Your task to perform on an android device: open app "ColorNote Notepad Notes" Image 0: 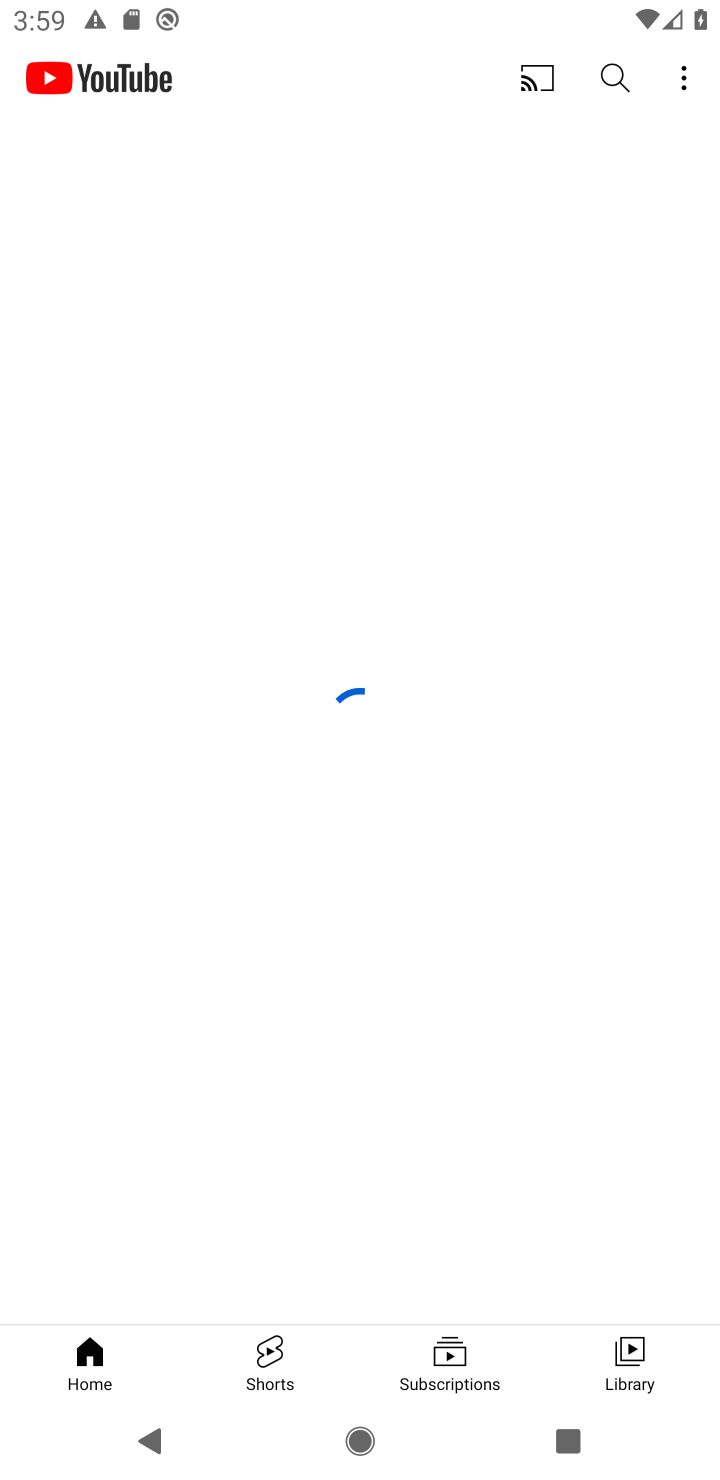
Step 0: press back button
Your task to perform on an android device: open app "ColorNote Notepad Notes" Image 1: 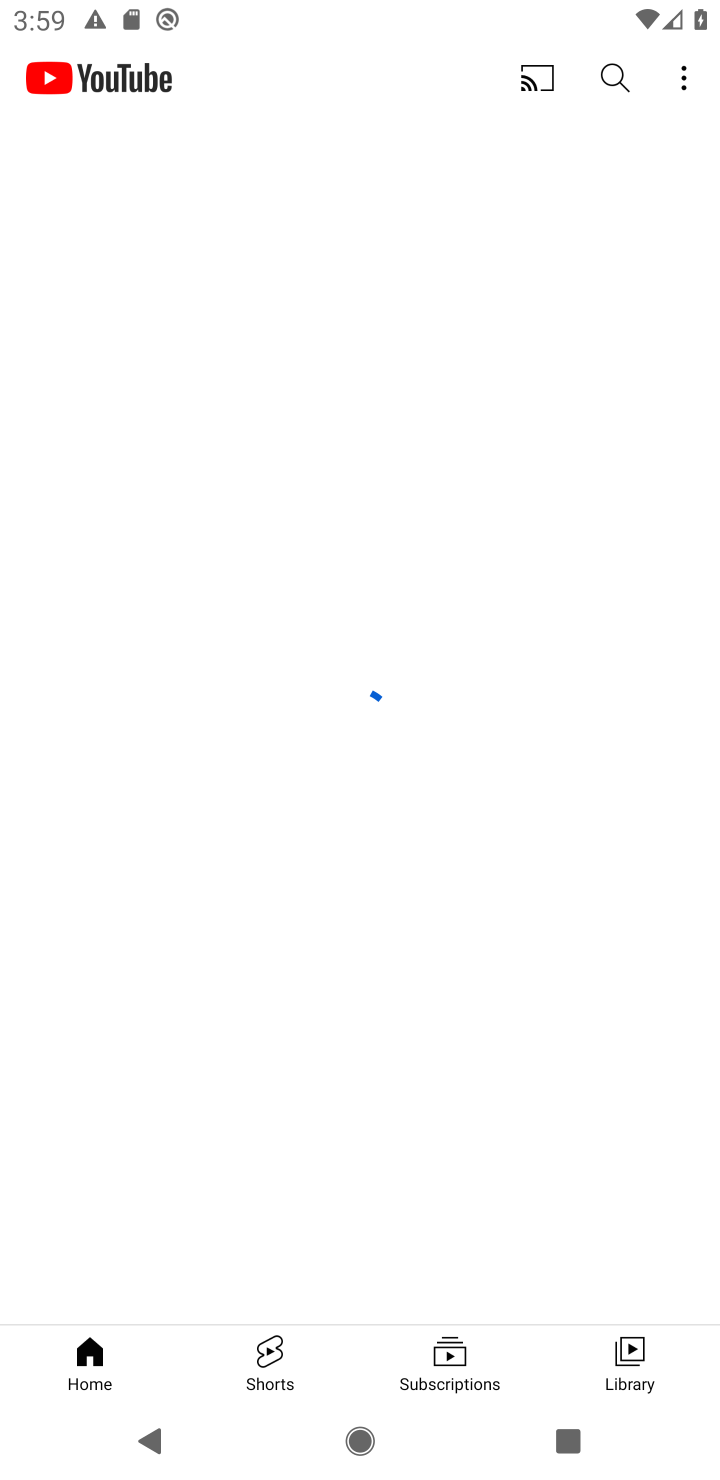
Step 1: click (607, 73)
Your task to perform on an android device: open app "ColorNote Notepad Notes" Image 2: 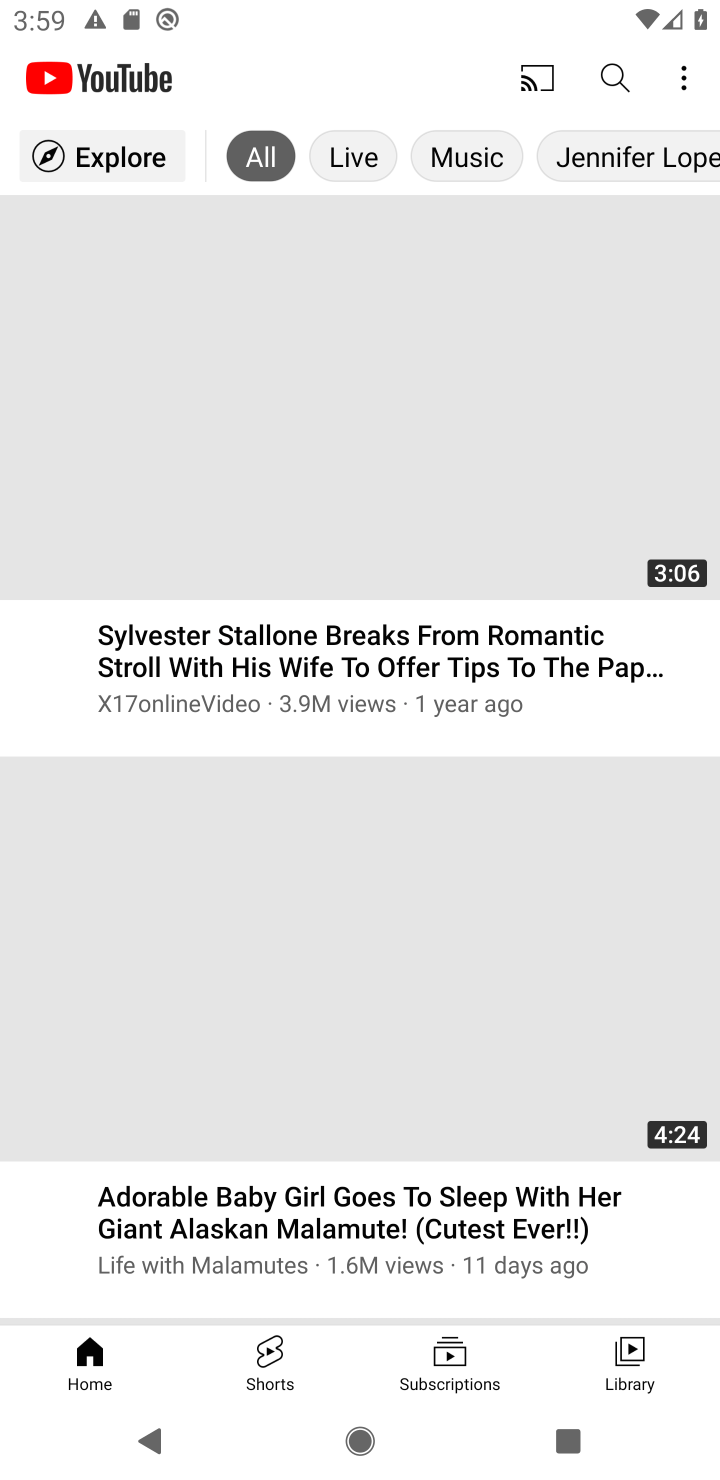
Step 2: press home button
Your task to perform on an android device: open app "ColorNote Notepad Notes" Image 3: 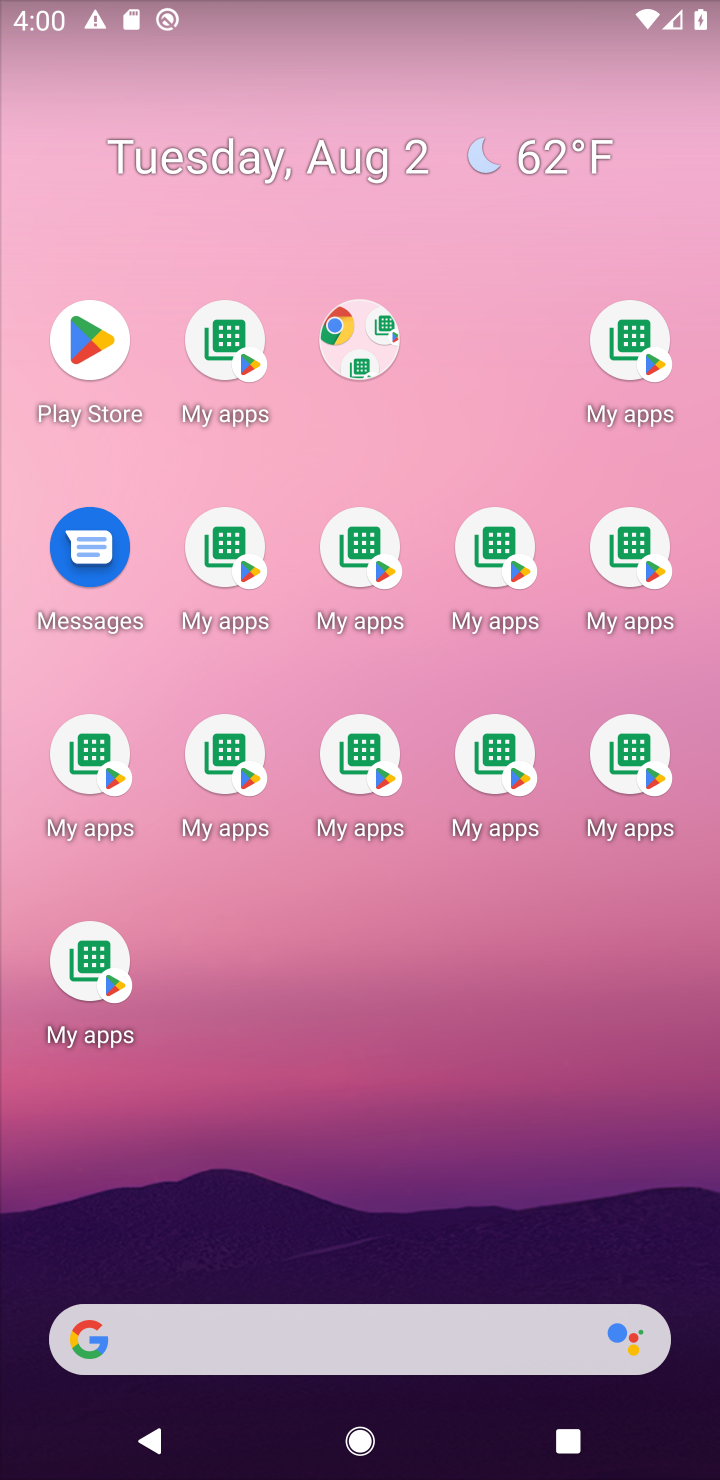
Step 3: click (88, 334)
Your task to perform on an android device: open app "ColorNote Notepad Notes" Image 4: 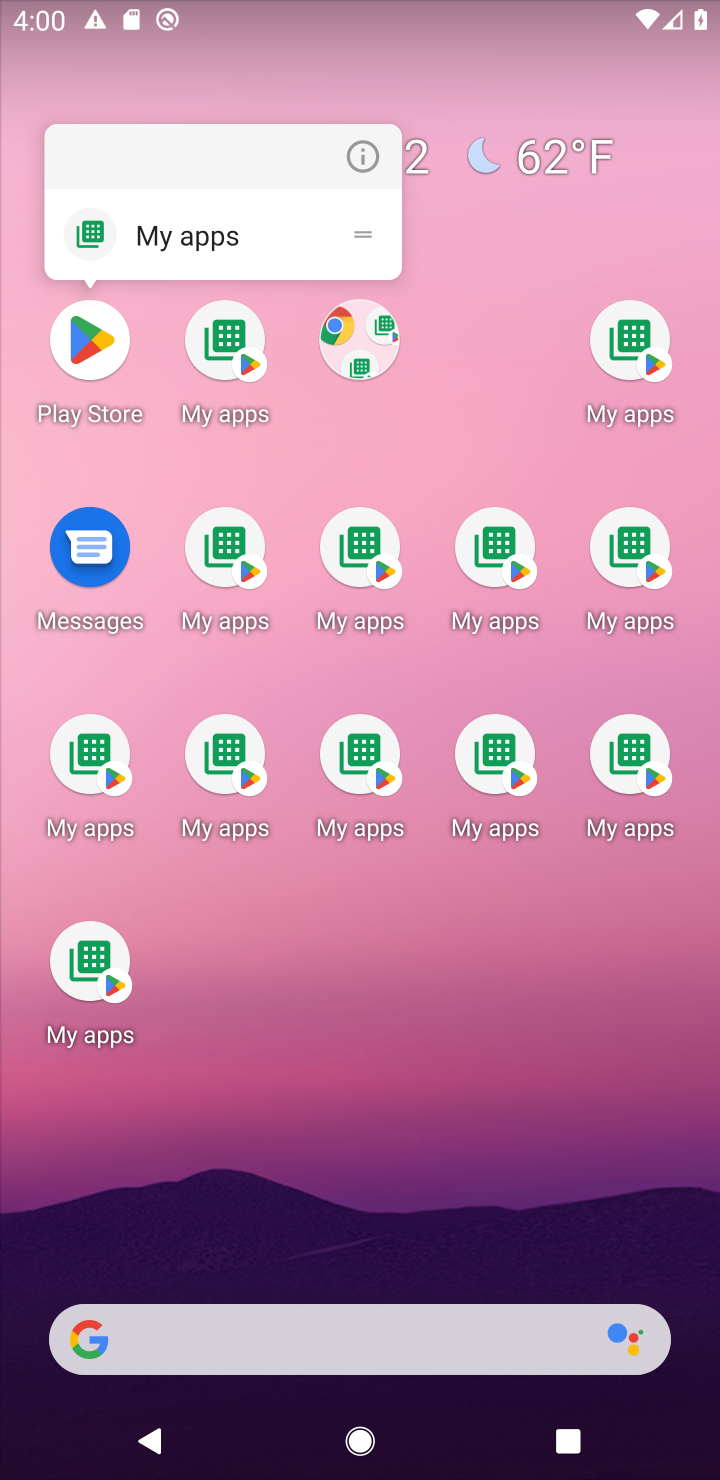
Step 4: click (111, 318)
Your task to perform on an android device: open app "ColorNote Notepad Notes" Image 5: 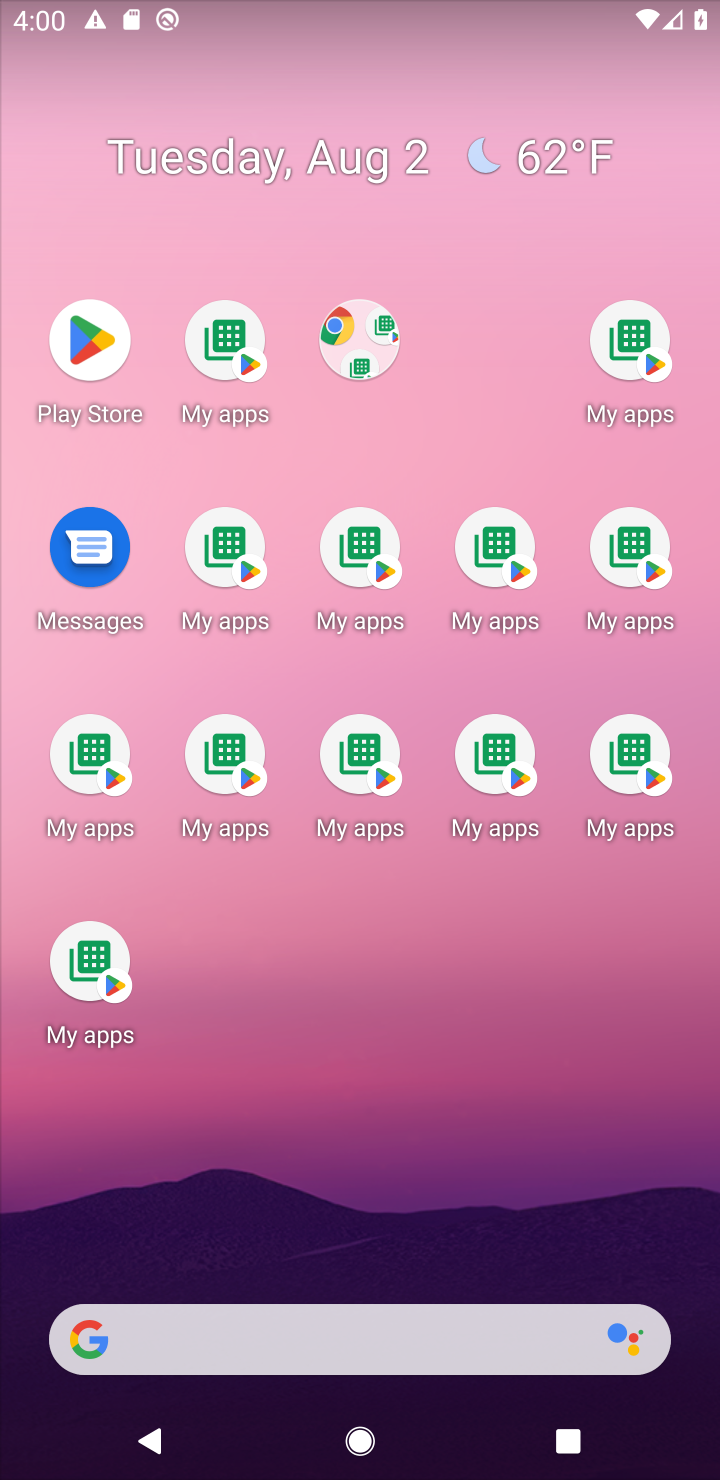
Step 5: drag from (95, 345) to (106, 418)
Your task to perform on an android device: open app "ColorNote Notepad Notes" Image 6: 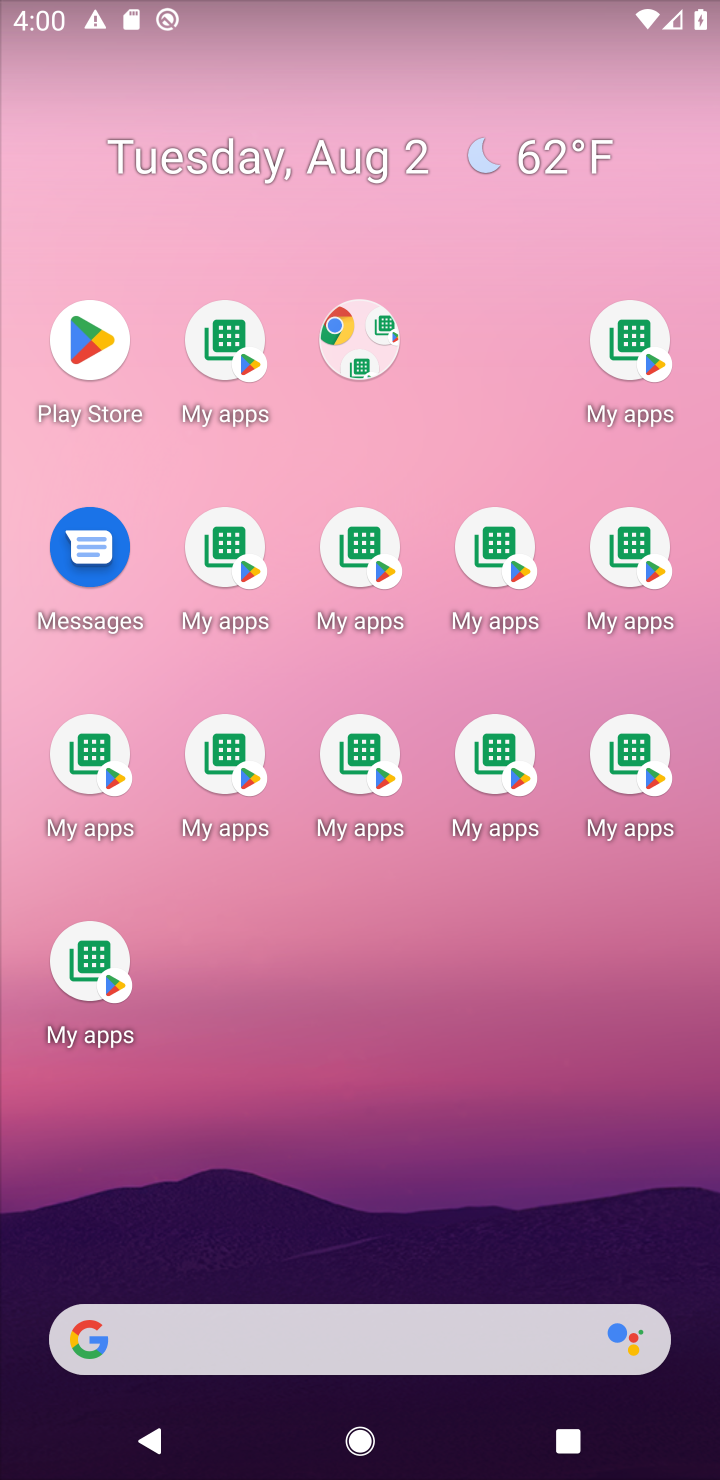
Step 6: click (80, 347)
Your task to perform on an android device: open app "ColorNote Notepad Notes" Image 7: 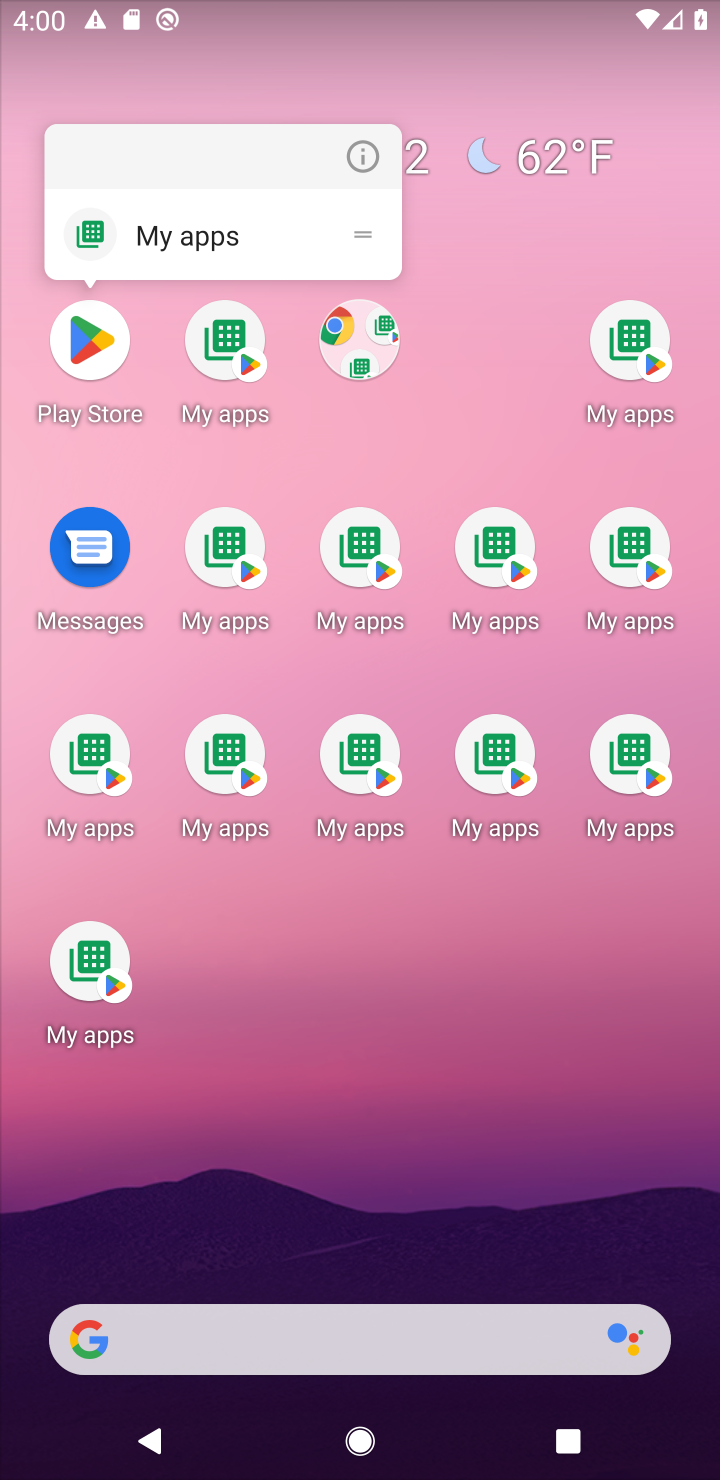
Step 7: click (80, 356)
Your task to perform on an android device: open app "ColorNote Notepad Notes" Image 8: 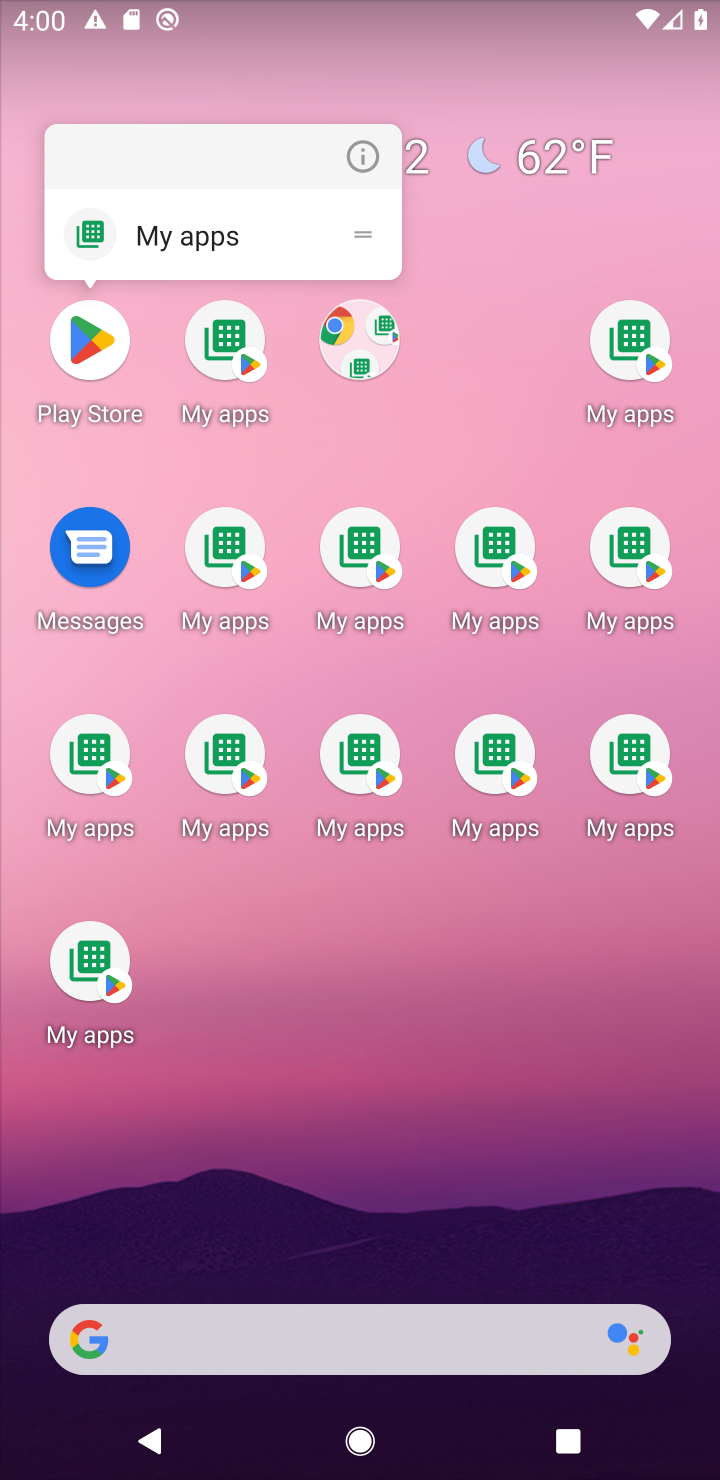
Step 8: click (78, 352)
Your task to perform on an android device: open app "ColorNote Notepad Notes" Image 9: 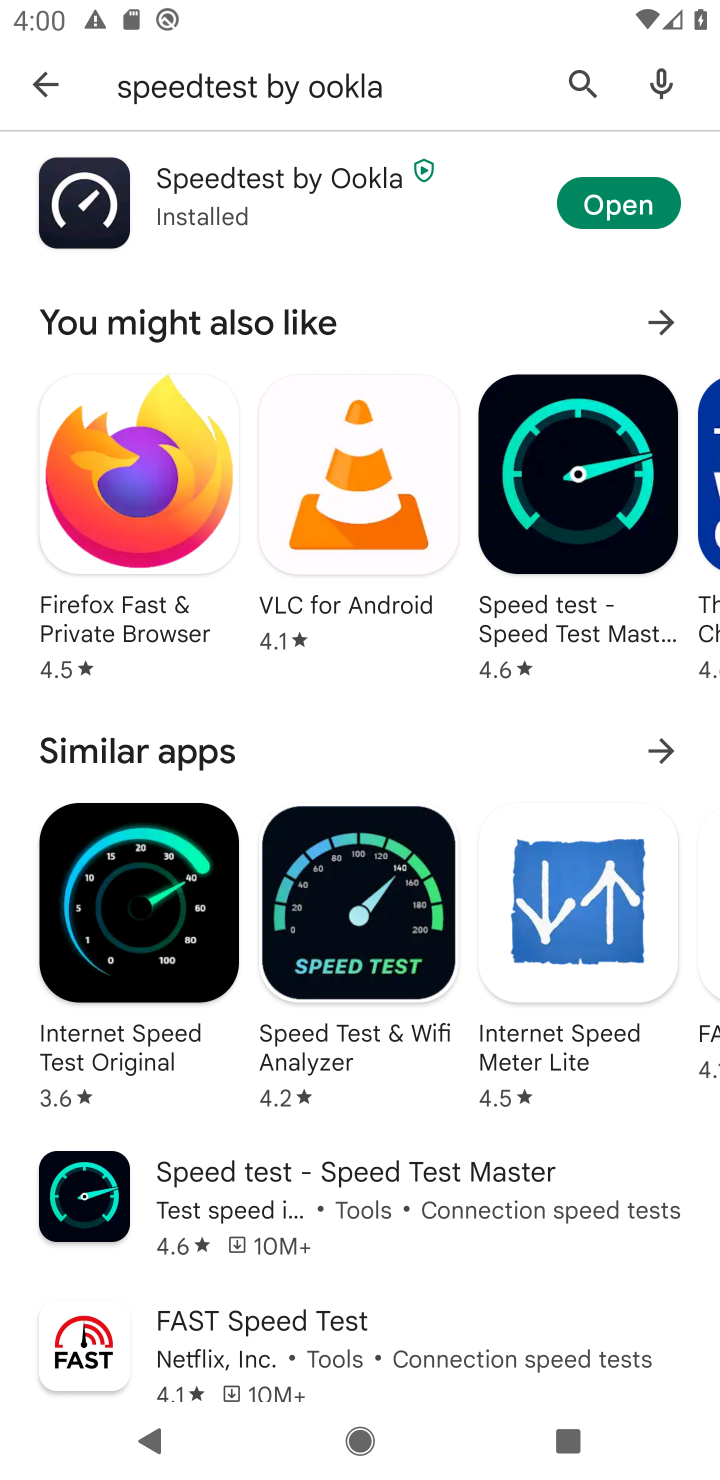
Step 9: click (49, 84)
Your task to perform on an android device: open app "ColorNote Notepad Notes" Image 10: 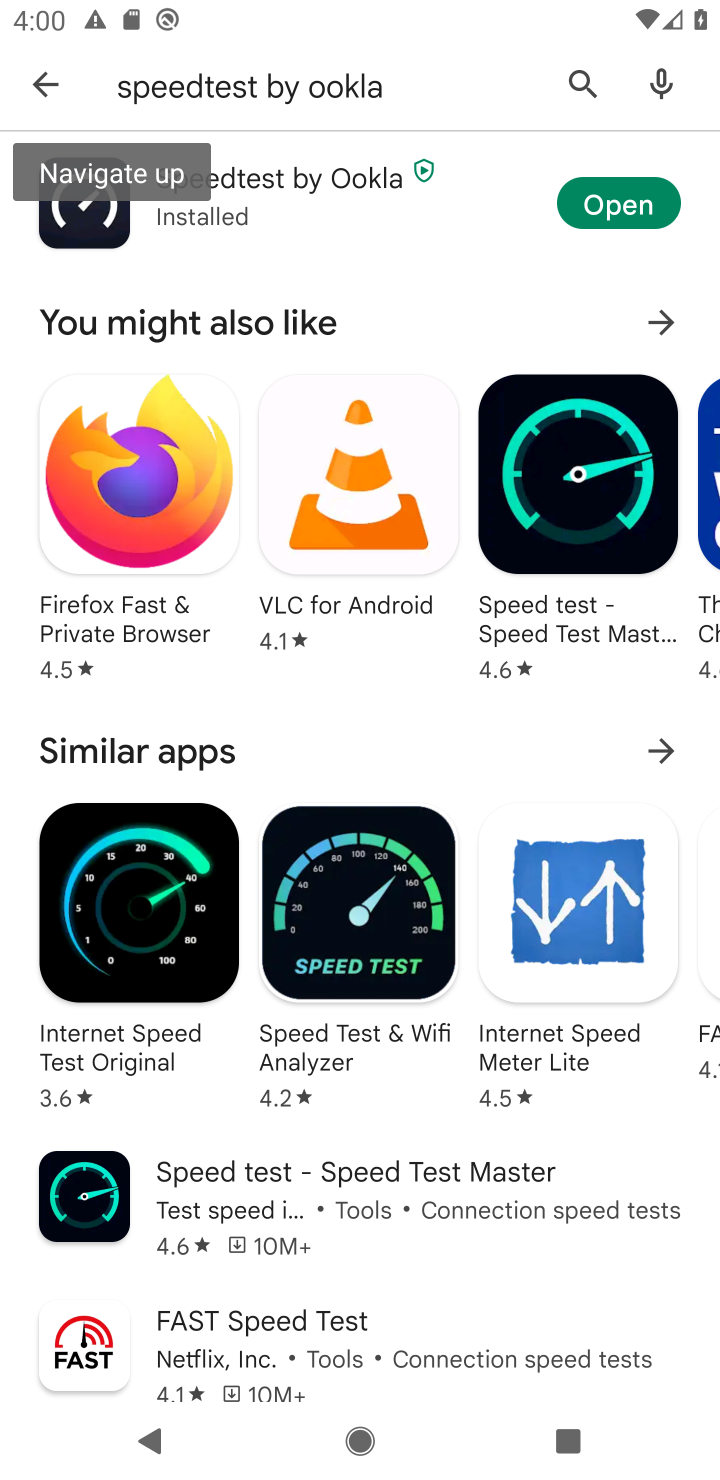
Step 10: click (58, 82)
Your task to perform on an android device: open app "ColorNote Notepad Notes" Image 11: 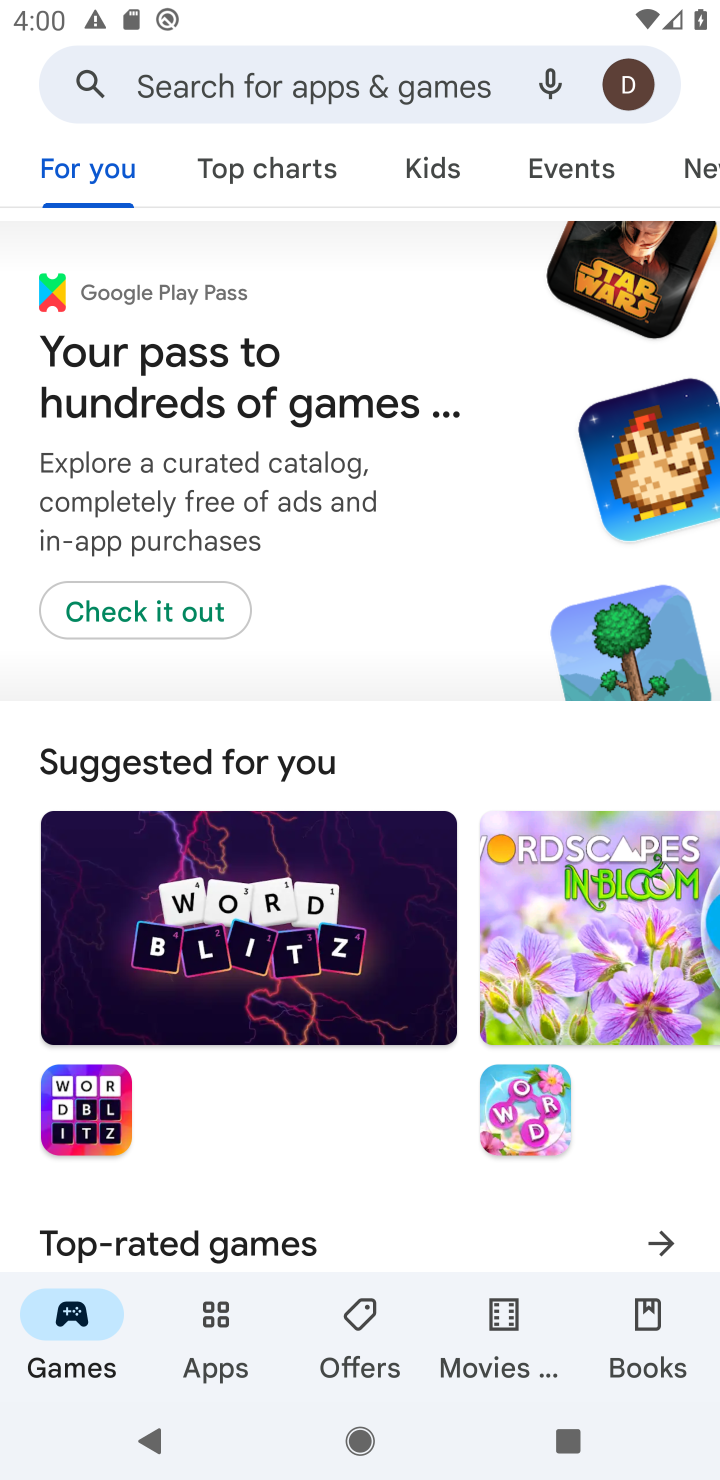
Step 11: click (182, 82)
Your task to perform on an android device: open app "ColorNote Notepad Notes" Image 12: 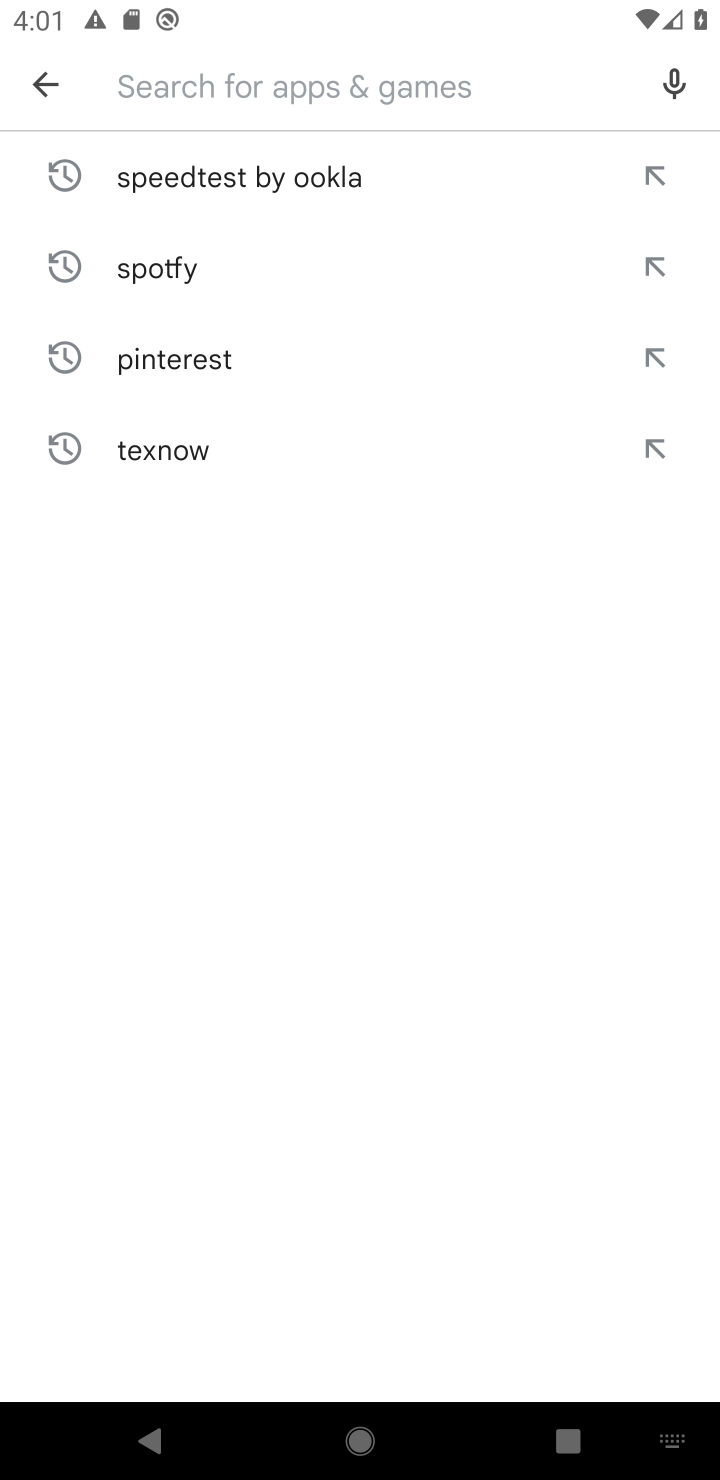
Step 12: type "colornote notepad"
Your task to perform on an android device: open app "ColorNote Notepad Notes" Image 13: 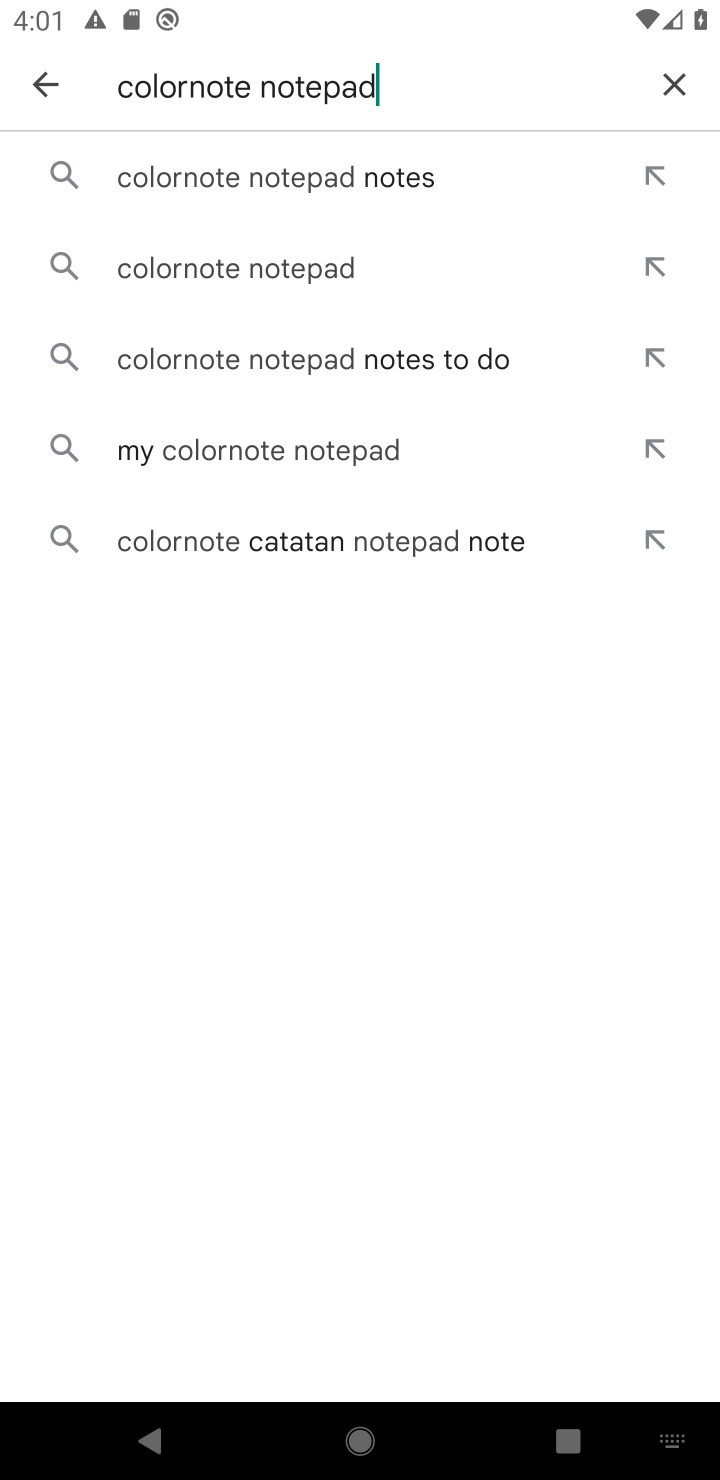
Step 13: click (224, 182)
Your task to perform on an android device: open app "ColorNote Notepad Notes" Image 14: 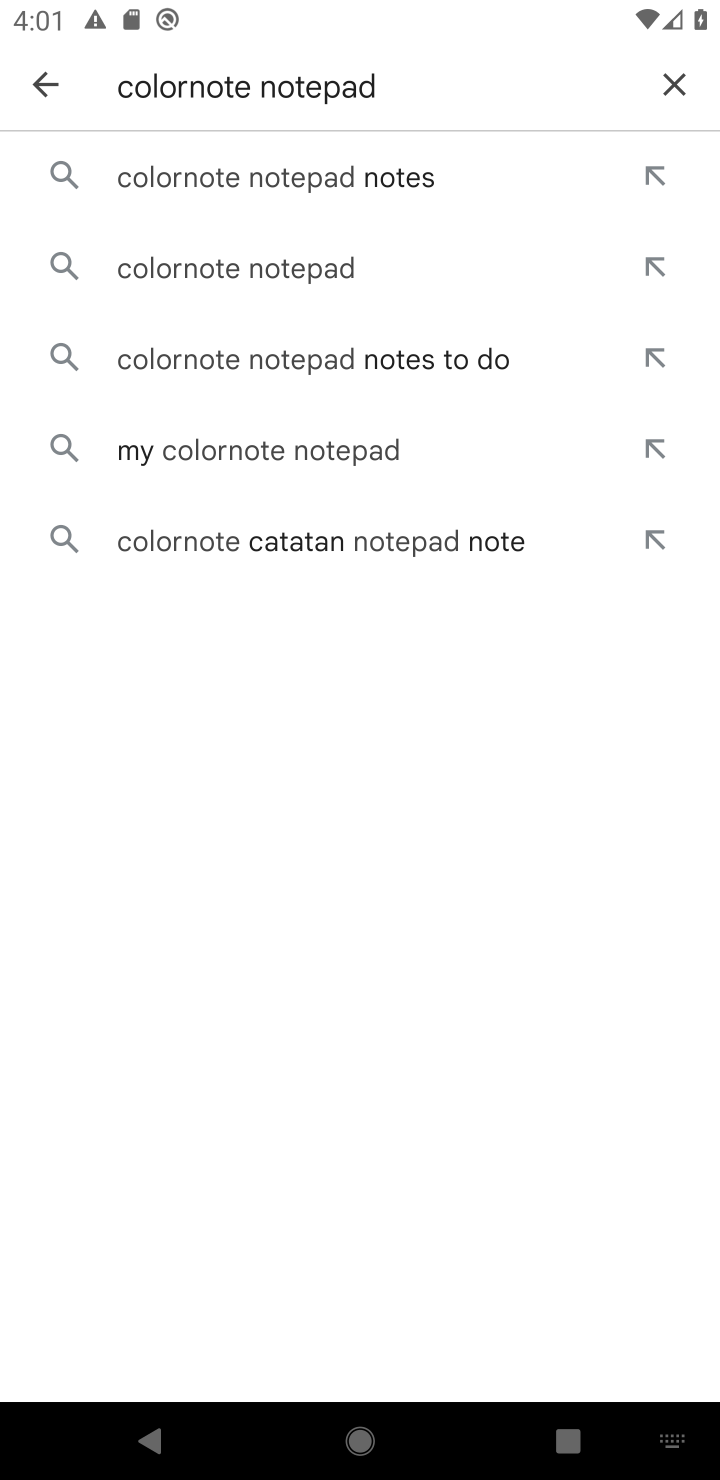
Step 14: click (247, 172)
Your task to perform on an android device: open app "ColorNote Notepad Notes" Image 15: 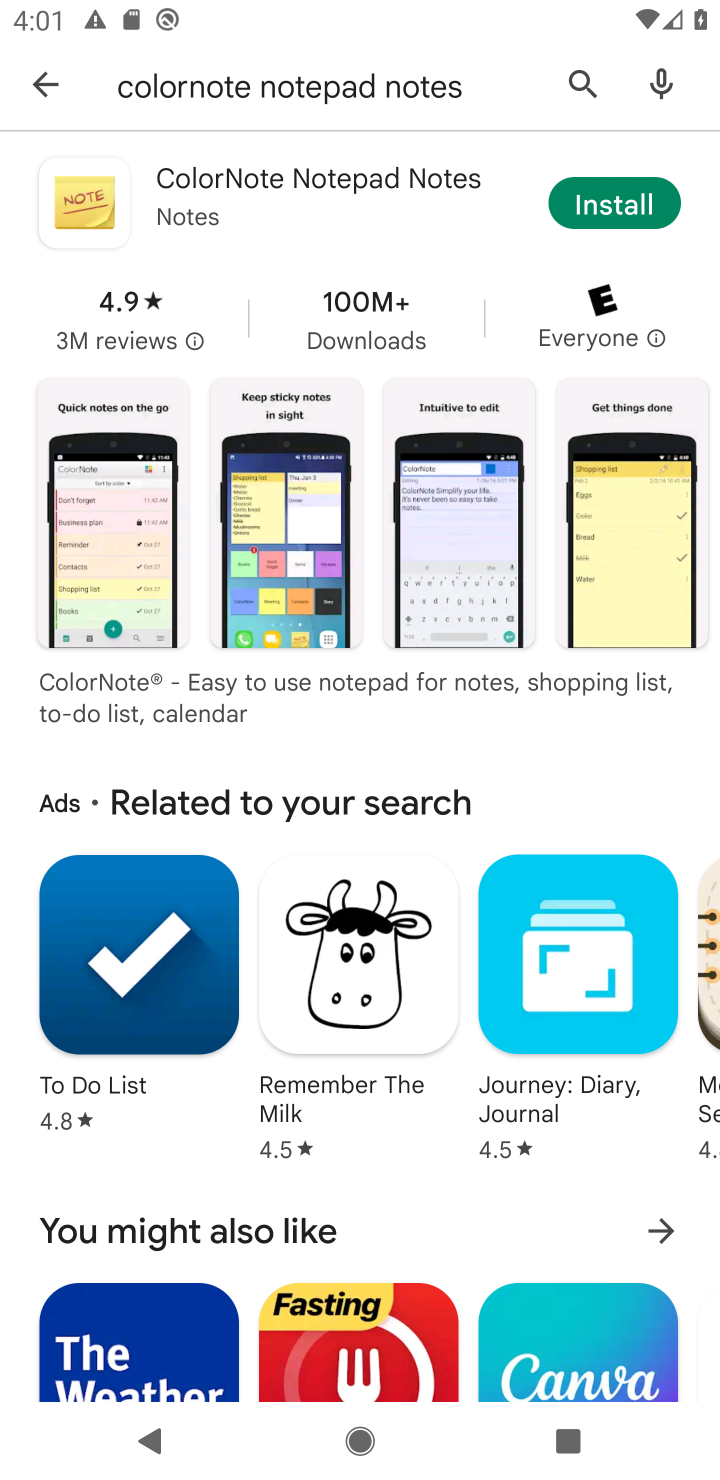
Step 15: click (618, 205)
Your task to perform on an android device: open app "ColorNote Notepad Notes" Image 16: 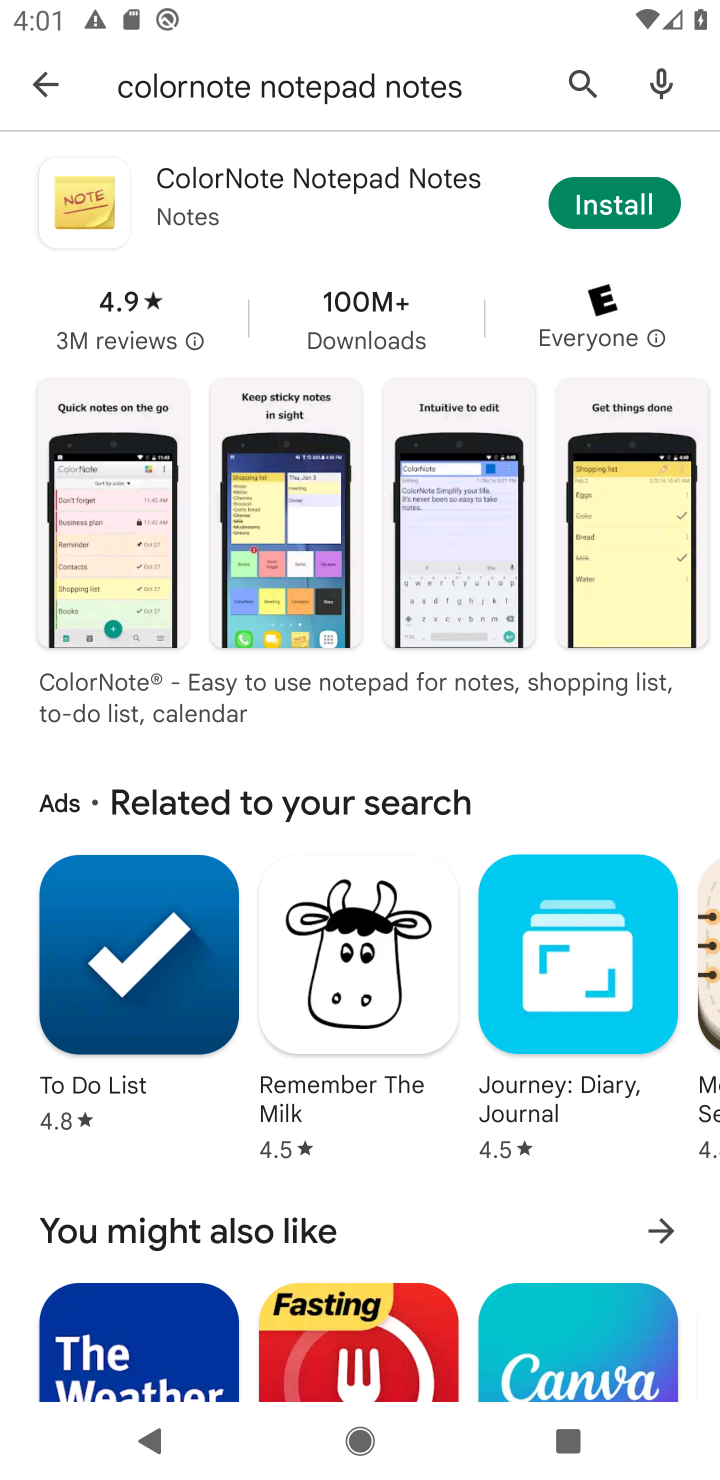
Step 16: click (631, 209)
Your task to perform on an android device: open app "ColorNote Notepad Notes" Image 17: 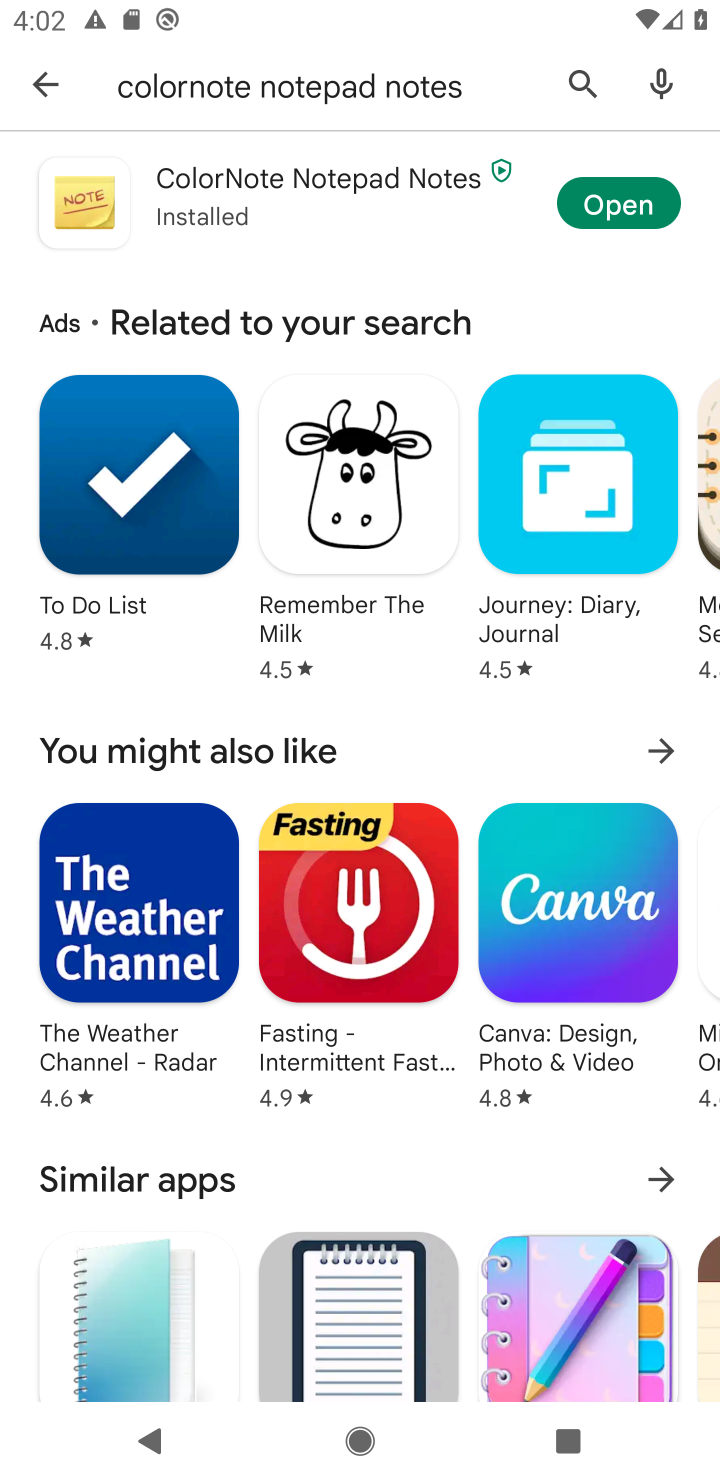
Step 17: click (613, 199)
Your task to perform on an android device: open app "ColorNote Notepad Notes" Image 18: 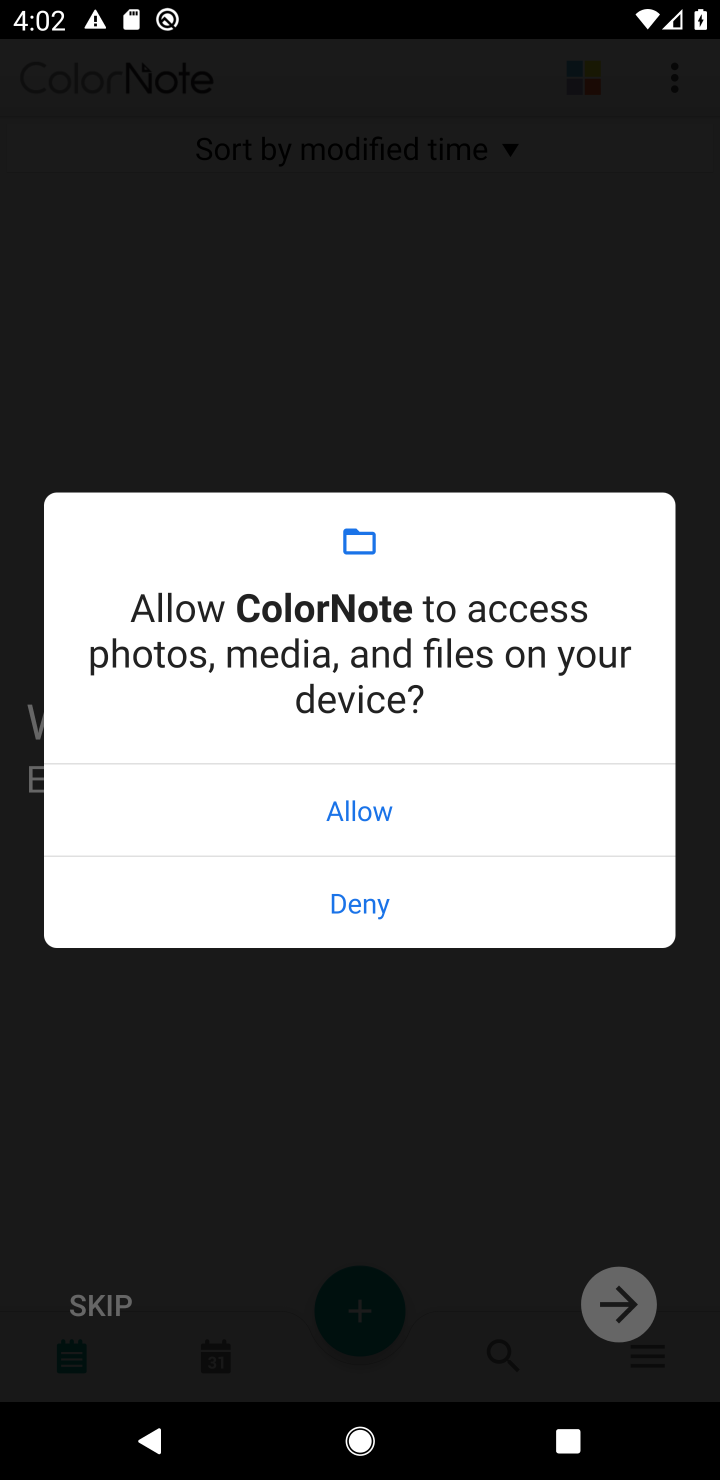
Step 18: task complete